Your task to perform on an android device: show emergency info Image 0: 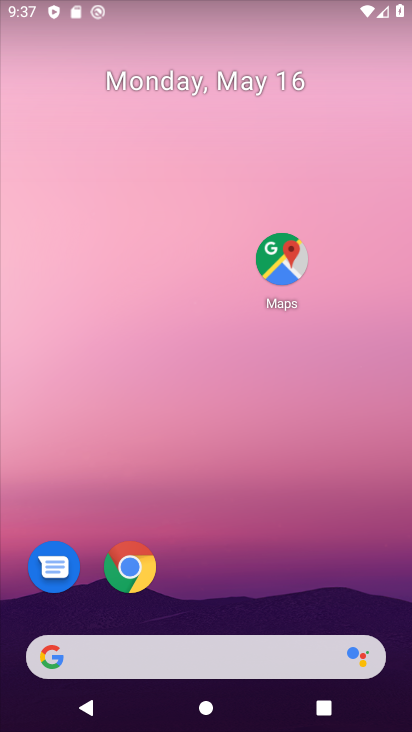
Step 0: drag from (229, 558) to (252, 112)
Your task to perform on an android device: show emergency info Image 1: 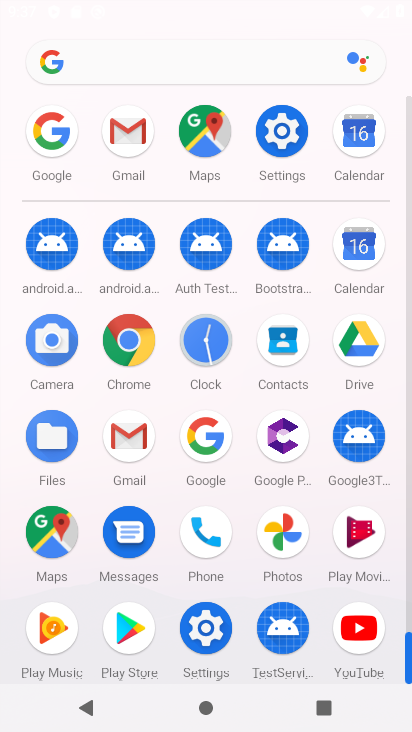
Step 1: click (283, 131)
Your task to perform on an android device: show emergency info Image 2: 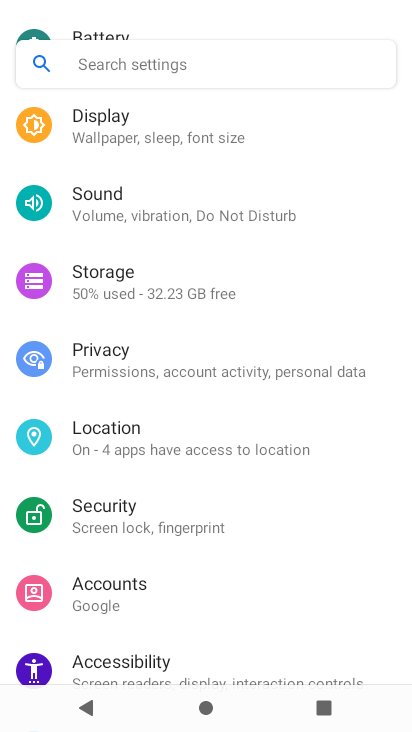
Step 2: drag from (244, 603) to (247, 63)
Your task to perform on an android device: show emergency info Image 3: 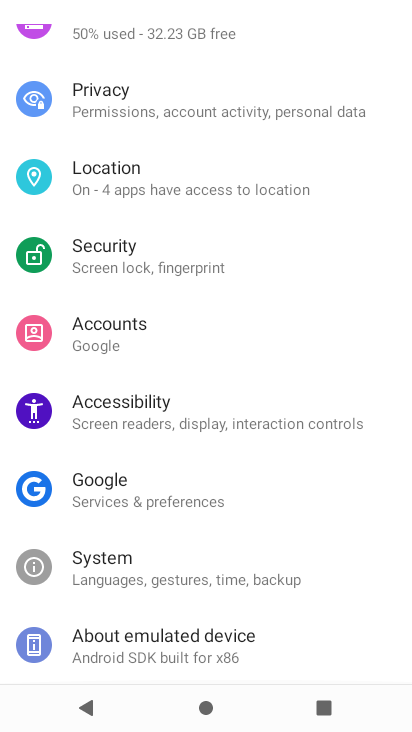
Step 3: click (166, 628)
Your task to perform on an android device: show emergency info Image 4: 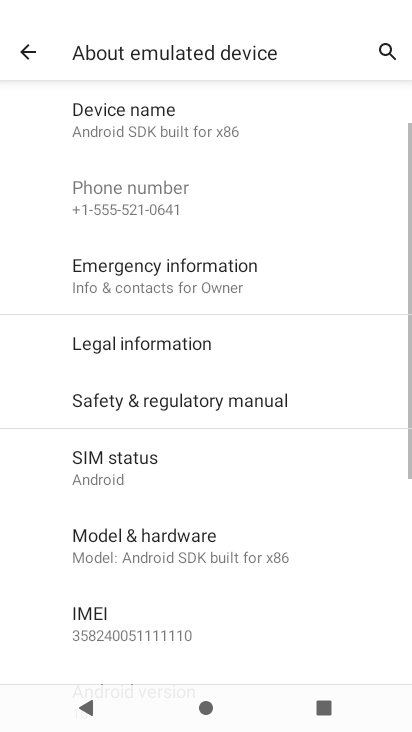
Step 4: click (197, 250)
Your task to perform on an android device: show emergency info Image 5: 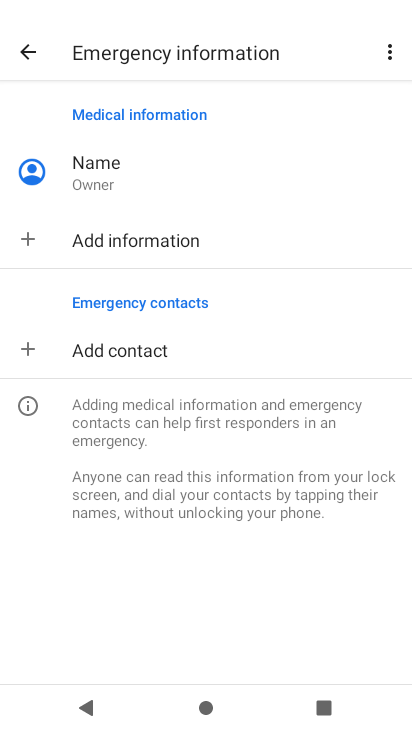
Step 5: task complete